Your task to perform on an android device: add a contact in the contacts app Image 0: 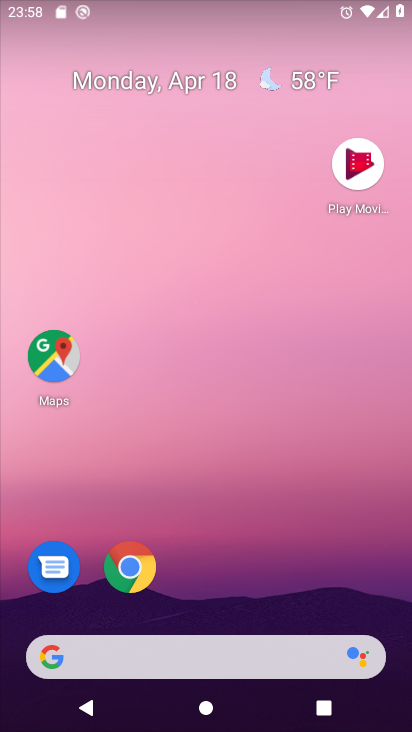
Step 0: drag from (217, 581) to (301, 83)
Your task to perform on an android device: add a contact in the contacts app Image 1: 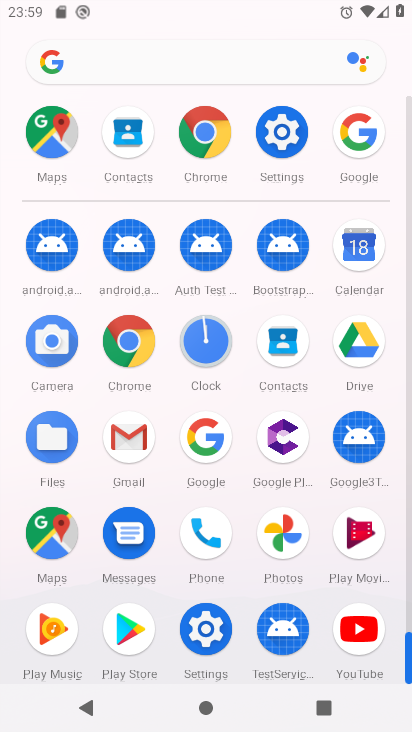
Step 1: click (285, 336)
Your task to perform on an android device: add a contact in the contacts app Image 2: 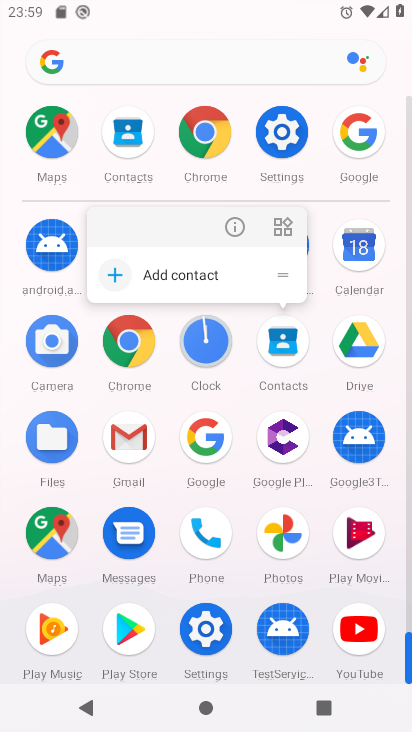
Step 2: click (285, 322)
Your task to perform on an android device: add a contact in the contacts app Image 3: 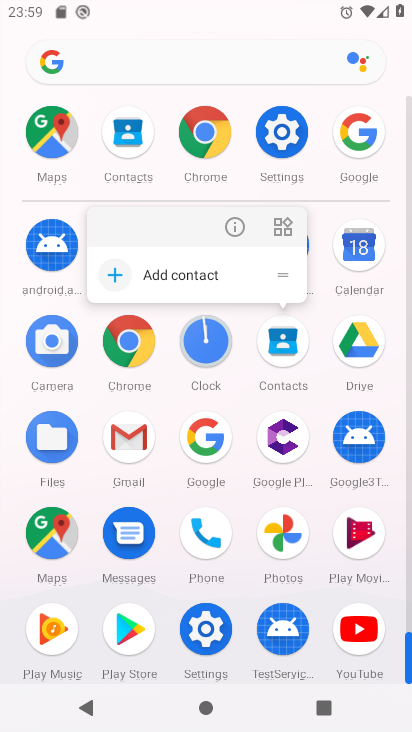
Step 3: click (285, 322)
Your task to perform on an android device: add a contact in the contacts app Image 4: 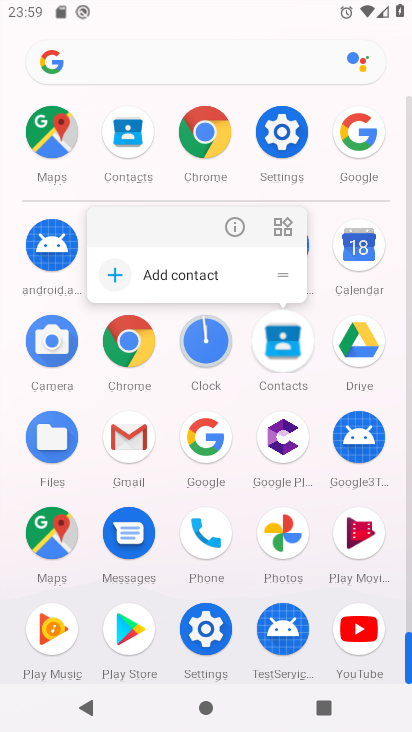
Step 4: click (285, 322)
Your task to perform on an android device: add a contact in the contacts app Image 5: 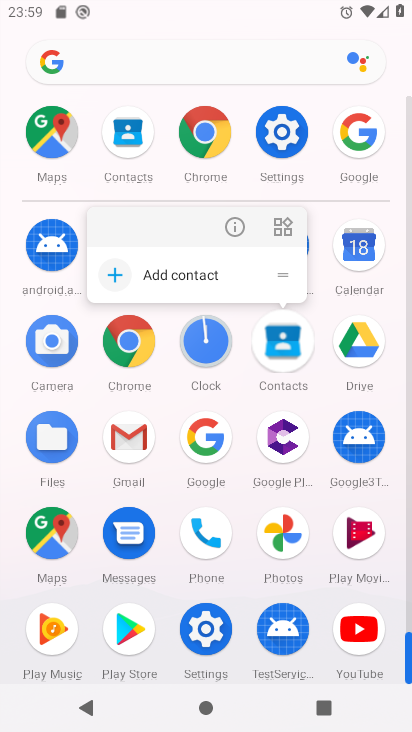
Step 5: click (285, 322)
Your task to perform on an android device: add a contact in the contacts app Image 6: 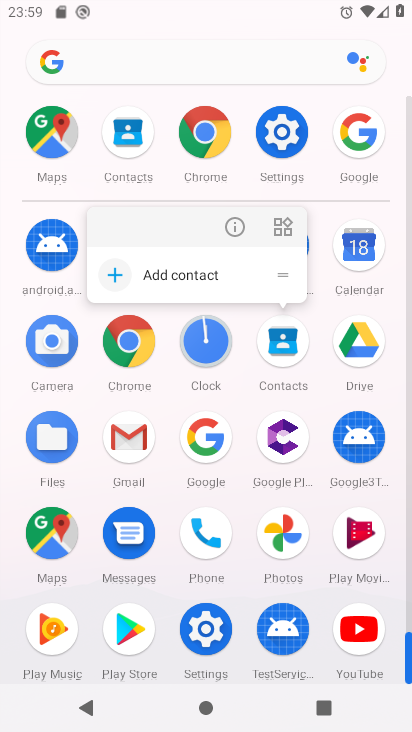
Step 6: click (285, 322)
Your task to perform on an android device: add a contact in the contacts app Image 7: 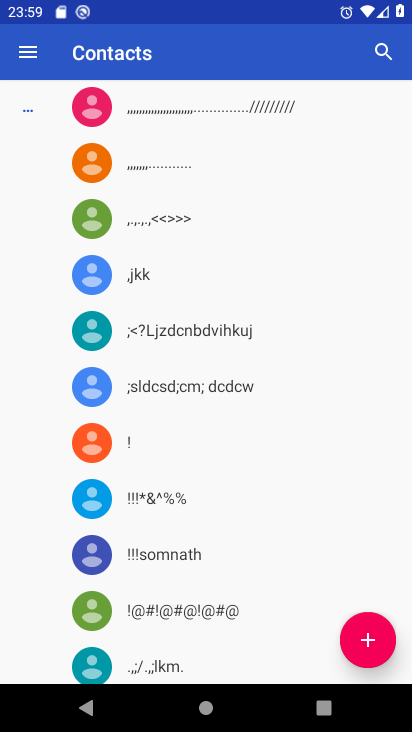
Step 7: drag from (230, 598) to (327, 246)
Your task to perform on an android device: add a contact in the contacts app Image 8: 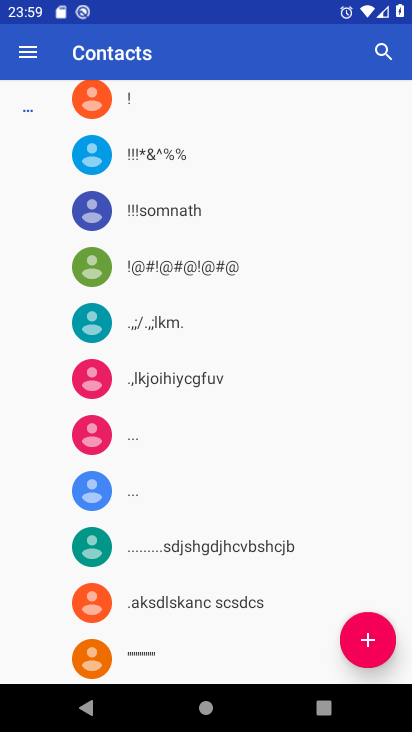
Step 8: drag from (251, 606) to (326, 204)
Your task to perform on an android device: add a contact in the contacts app Image 9: 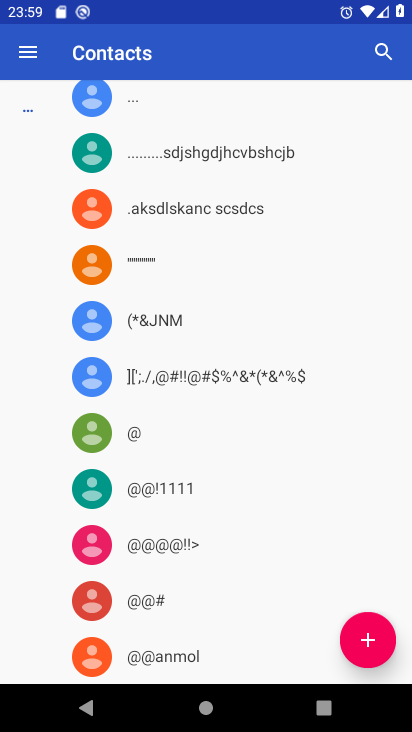
Step 9: drag from (204, 594) to (314, 212)
Your task to perform on an android device: add a contact in the contacts app Image 10: 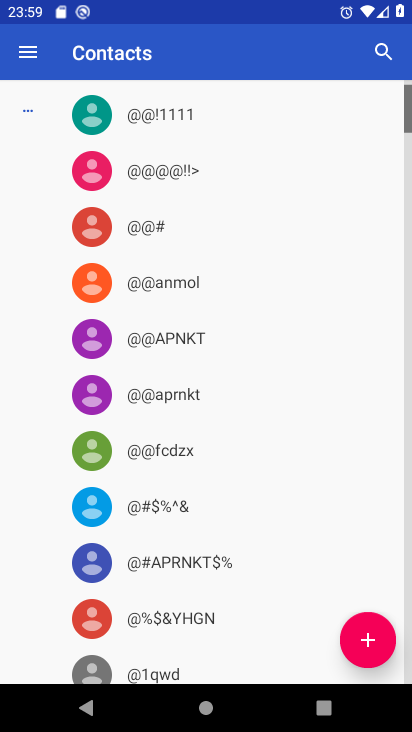
Step 10: drag from (305, 209) to (305, 696)
Your task to perform on an android device: add a contact in the contacts app Image 11: 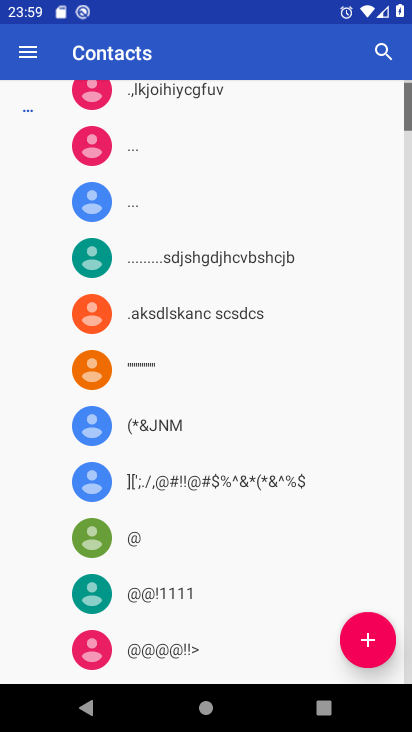
Step 11: click (363, 623)
Your task to perform on an android device: add a contact in the contacts app Image 12: 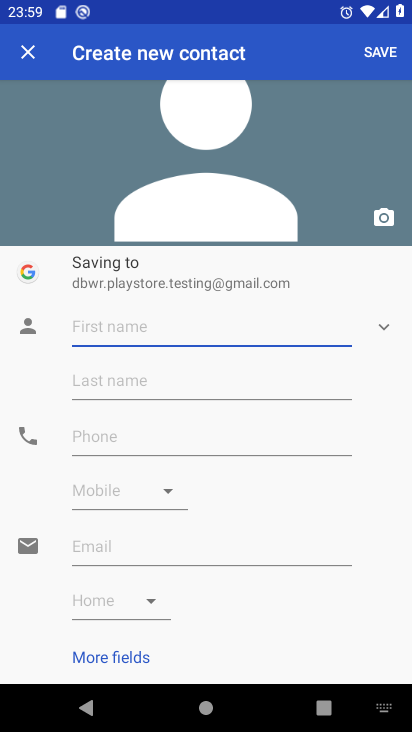
Step 12: click (126, 329)
Your task to perform on an android device: add a contact in the contacts app Image 13: 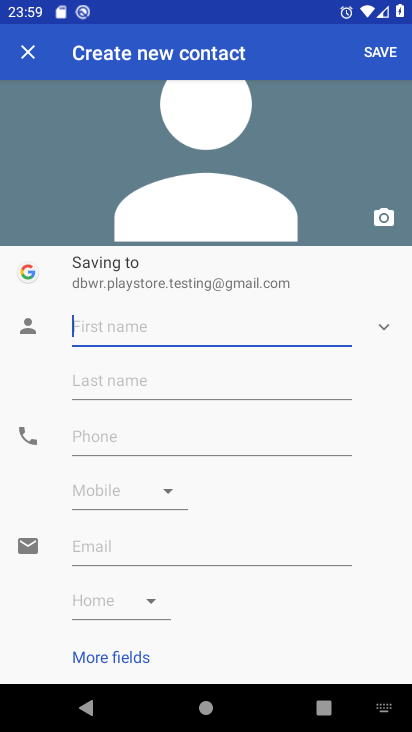
Step 13: click (191, 333)
Your task to perform on an android device: add a contact in the contacts app Image 14: 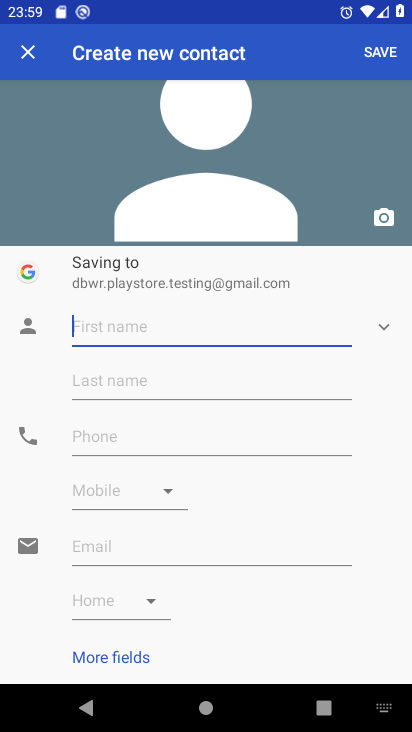
Step 14: type "mskal"
Your task to perform on an android device: add a contact in the contacts app Image 15: 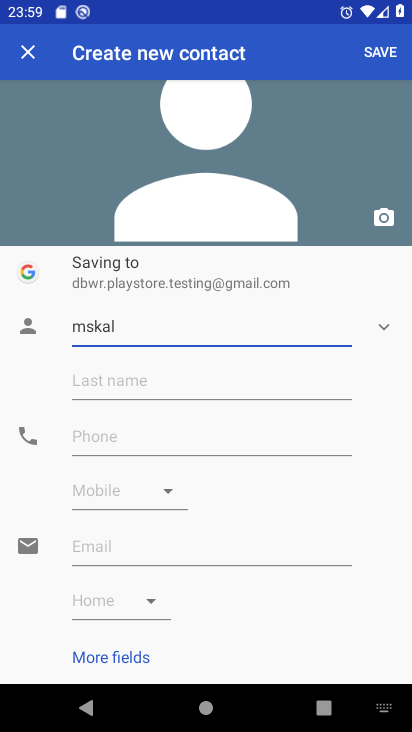
Step 15: click (382, 50)
Your task to perform on an android device: add a contact in the contacts app Image 16: 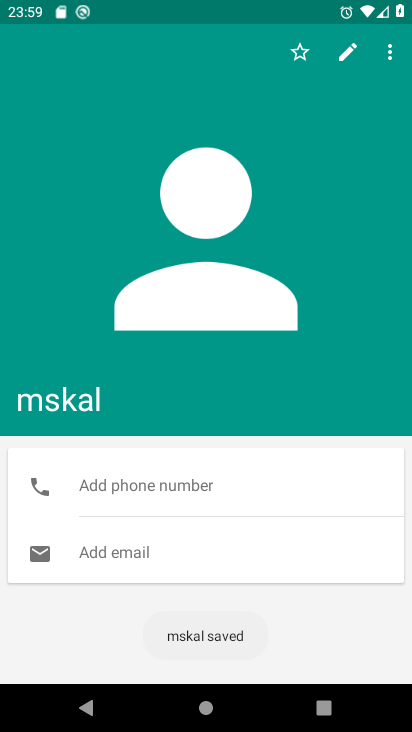
Step 16: task complete